Your task to perform on an android device: What's on my calendar today? Image 0: 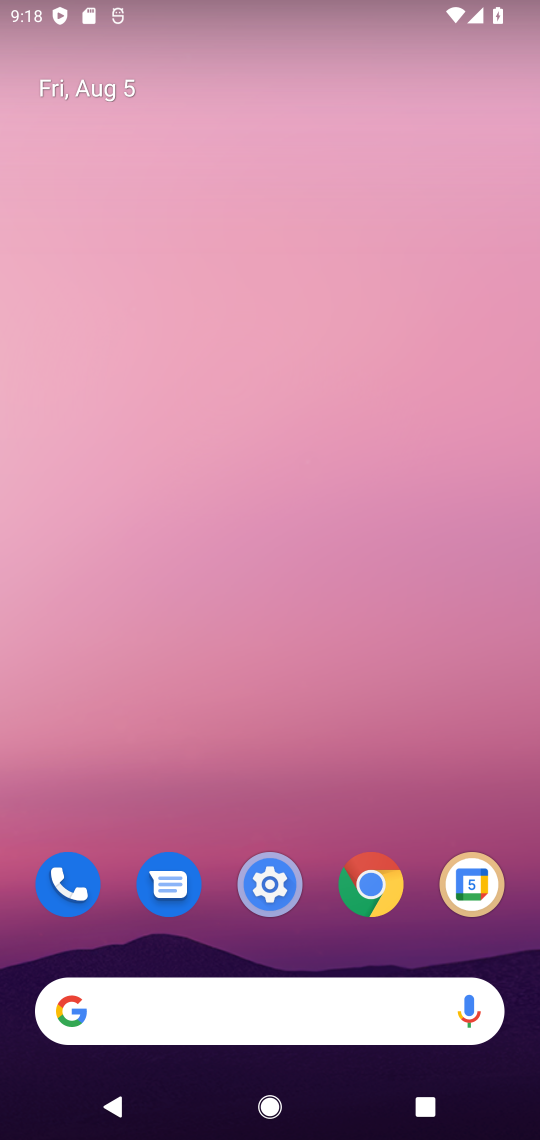
Step 0: drag from (322, 771) to (366, 220)
Your task to perform on an android device: What's on my calendar today? Image 1: 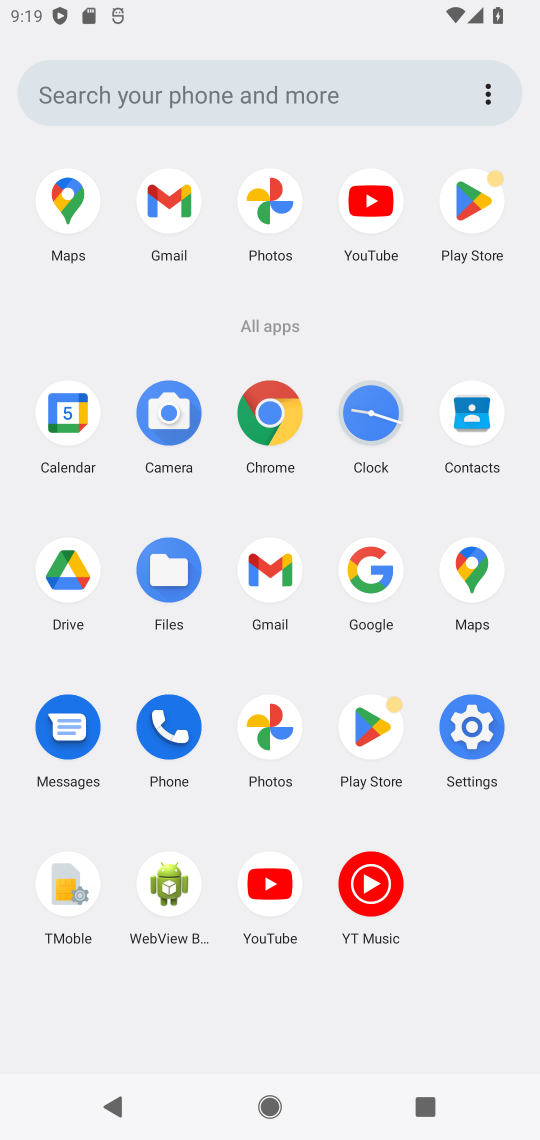
Step 1: click (74, 417)
Your task to perform on an android device: What's on my calendar today? Image 2: 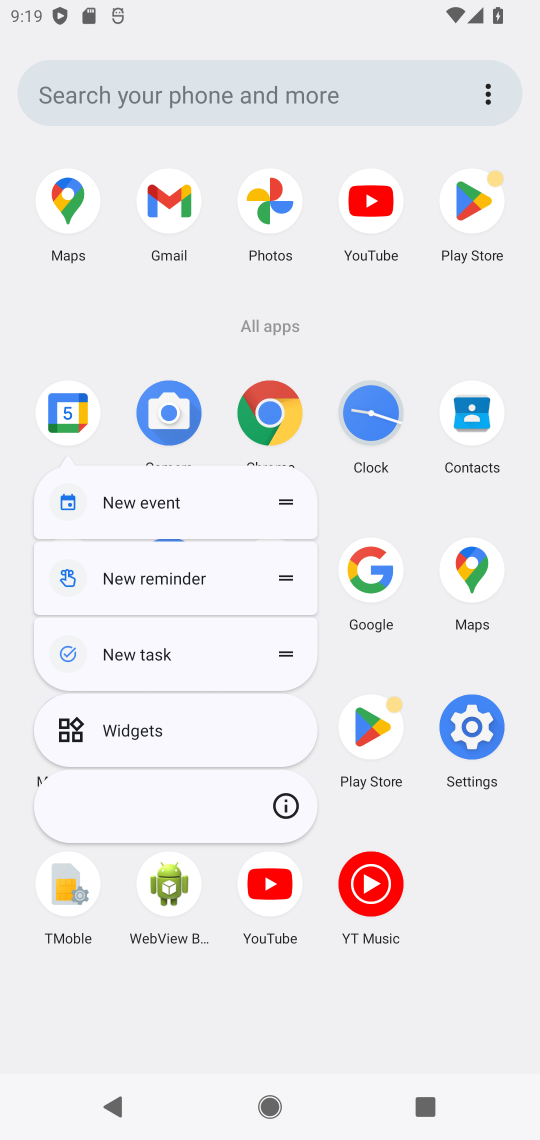
Step 2: click (52, 410)
Your task to perform on an android device: What's on my calendar today? Image 3: 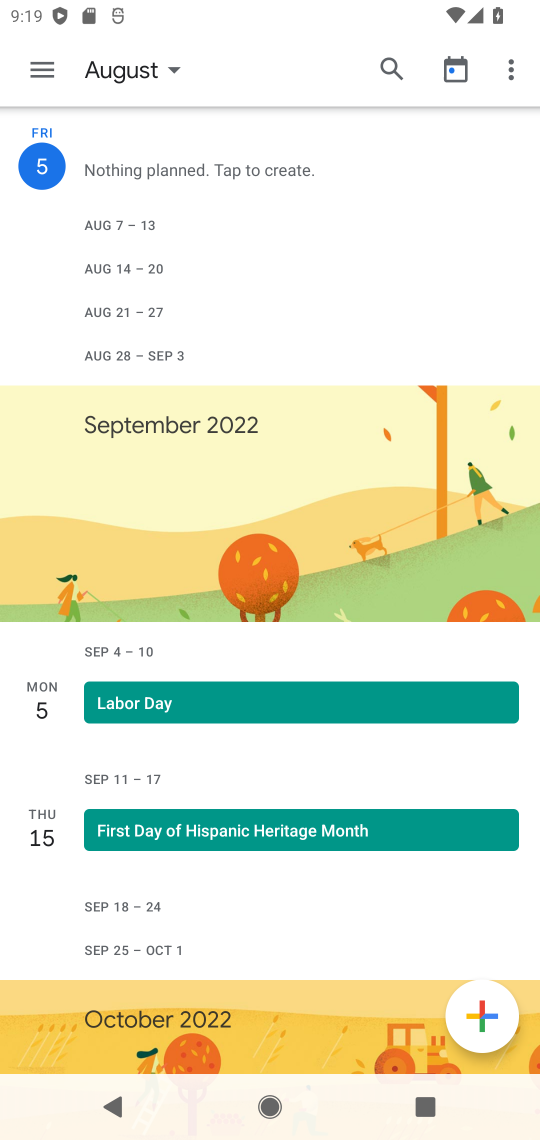
Step 3: task complete